Your task to perform on an android device: turn pop-ups on in chrome Image 0: 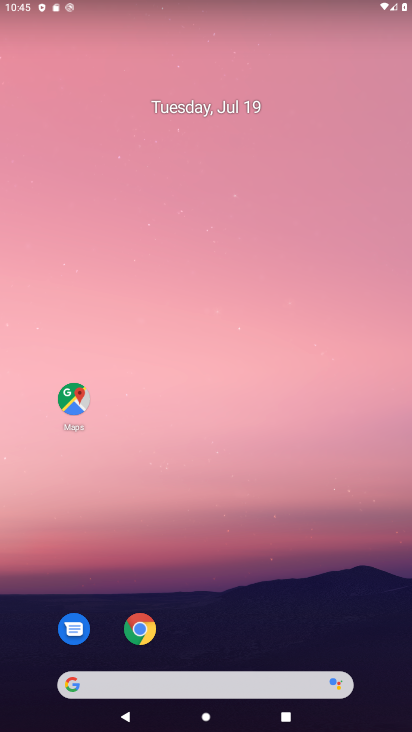
Step 0: click (133, 629)
Your task to perform on an android device: turn pop-ups on in chrome Image 1: 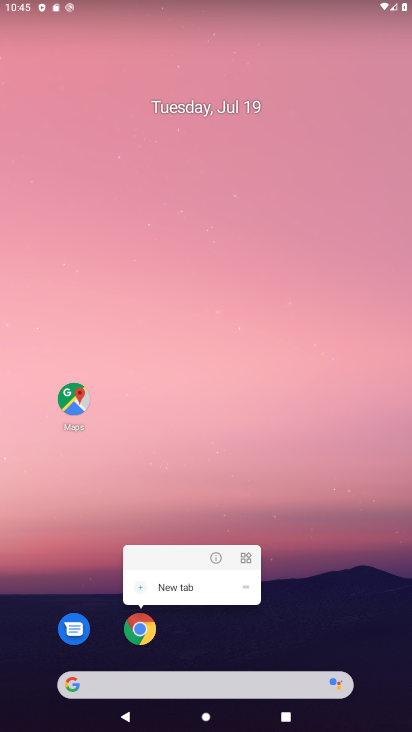
Step 1: click (144, 626)
Your task to perform on an android device: turn pop-ups on in chrome Image 2: 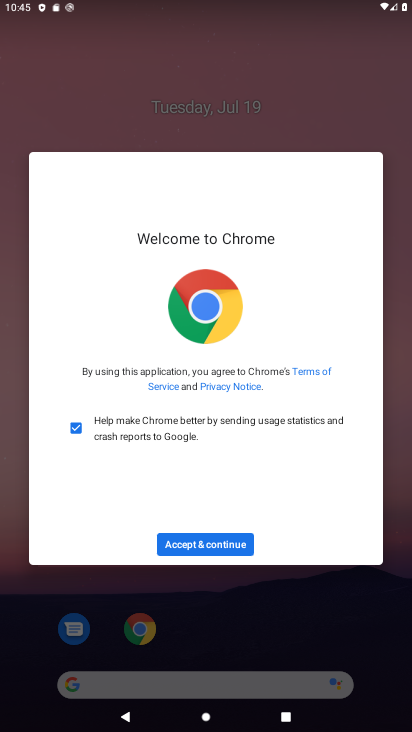
Step 2: click (221, 548)
Your task to perform on an android device: turn pop-ups on in chrome Image 3: 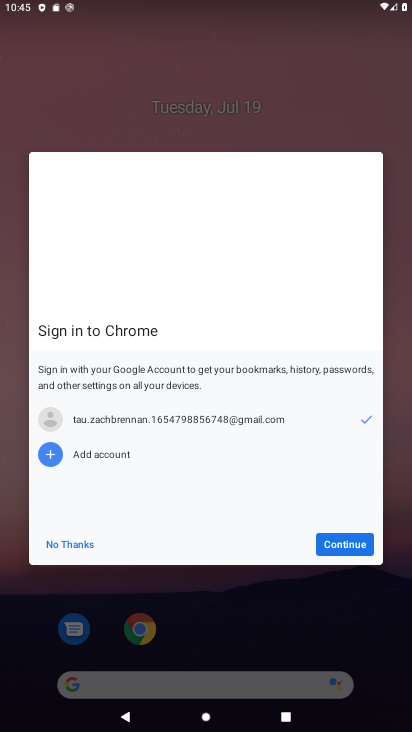
Step 3: click (343, 542)
Your task to perform on an android device: turn pop-ups on in chrome Image 4: 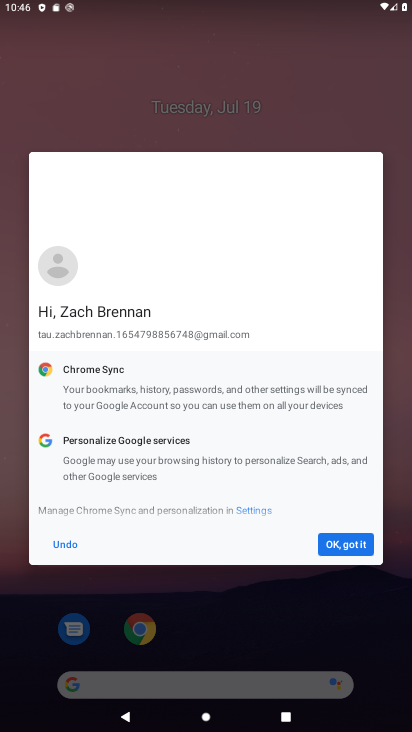
Step 4: click (343, 544)
Your task to perform on an android device: turn pop-ups on in chrome Image 5: 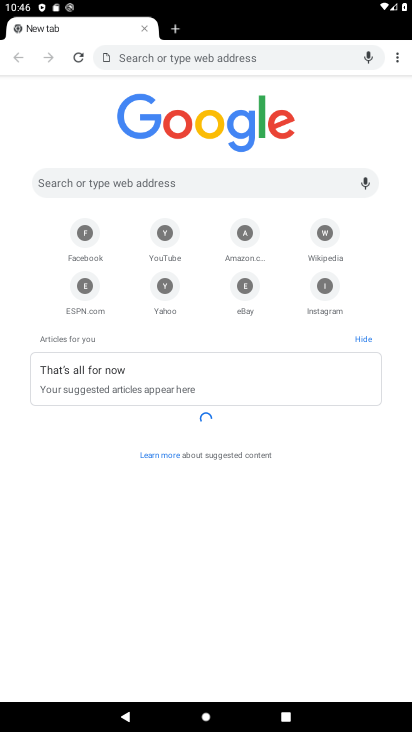
Step 5: click (394, 55)
Your task to perform on an android device: turn pop-ups on in chrome Image 6: 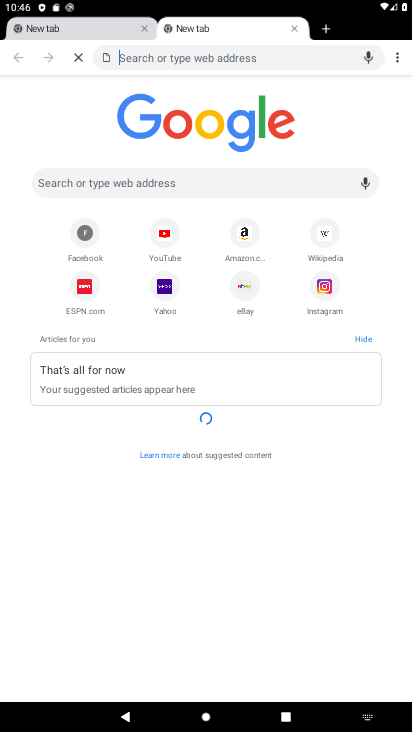
Step 6: click (394, 56)
Your task to perform on an android device: turn pop-ups on in chrome Image 7: 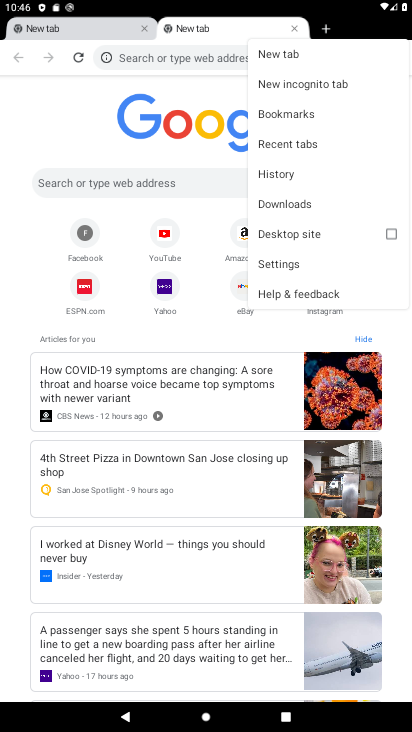
Step 7: click (292, 265)
Your task to perform on an android device: turn pop-ups on in chrome Image 8: 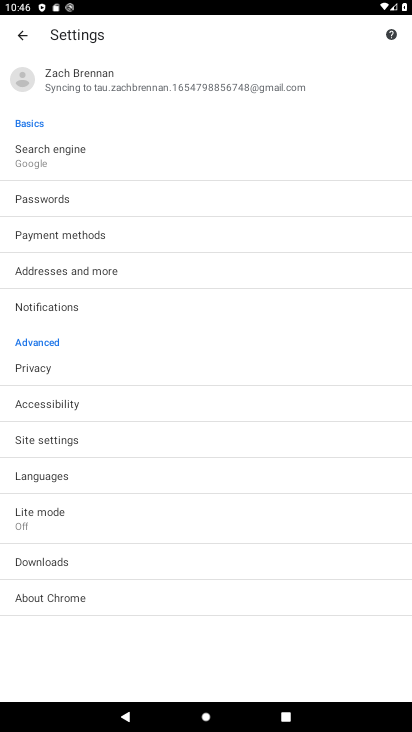
Step 8: click (55, 446)
Your task to perform on an android device: turn pop-ups on in chrome Image 9: 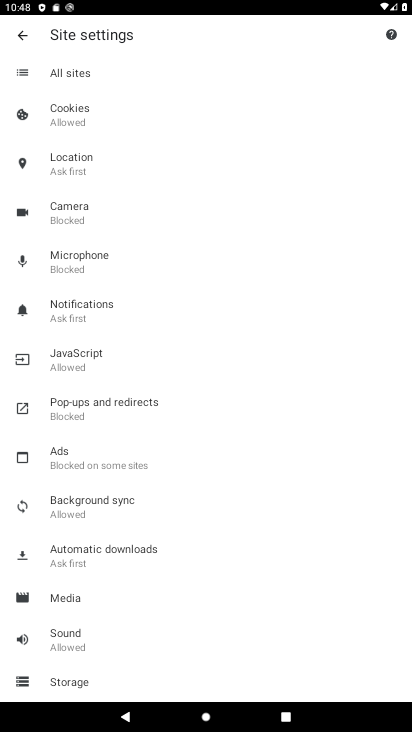
Step 9: click (75, 410)
Your task to perform on an android device: turn pop-ups on in chrome Image 10: 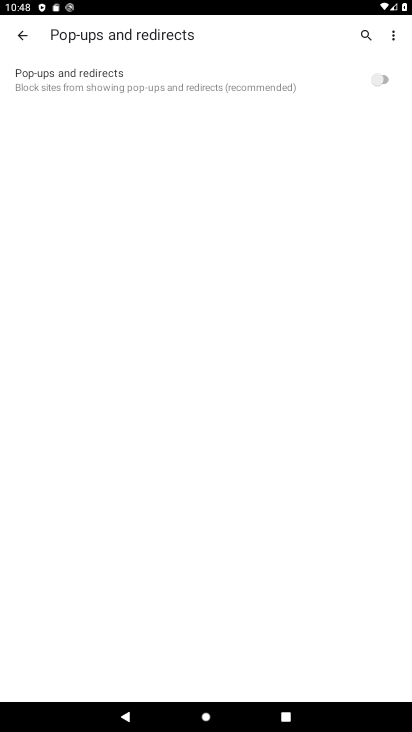
Step 10: click (382, 78)
Your task to perform on an android device: turn pop-ups on in chrome Image 11: 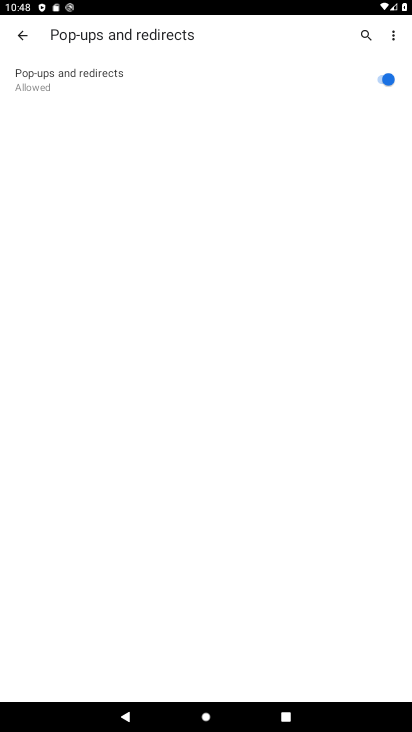
Step 11: task complete